Your task to perform on an android device: open app "Facebook Lite" (install if not already installed) and enter user name: "suppers@inbox.com" and password: "downplayed" Image 0: 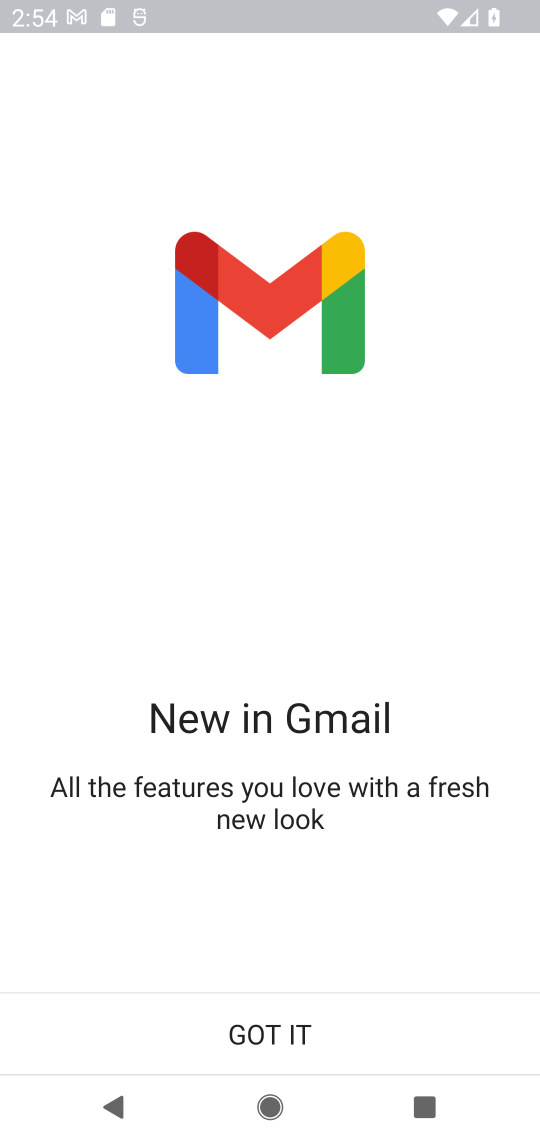
Step 0: press home button
Your task to perform on an android device: open app "Facebook Lite" (install if not already installed) and enter user name: "suppers@inbox.com" and password: "downplayed" Image 1: 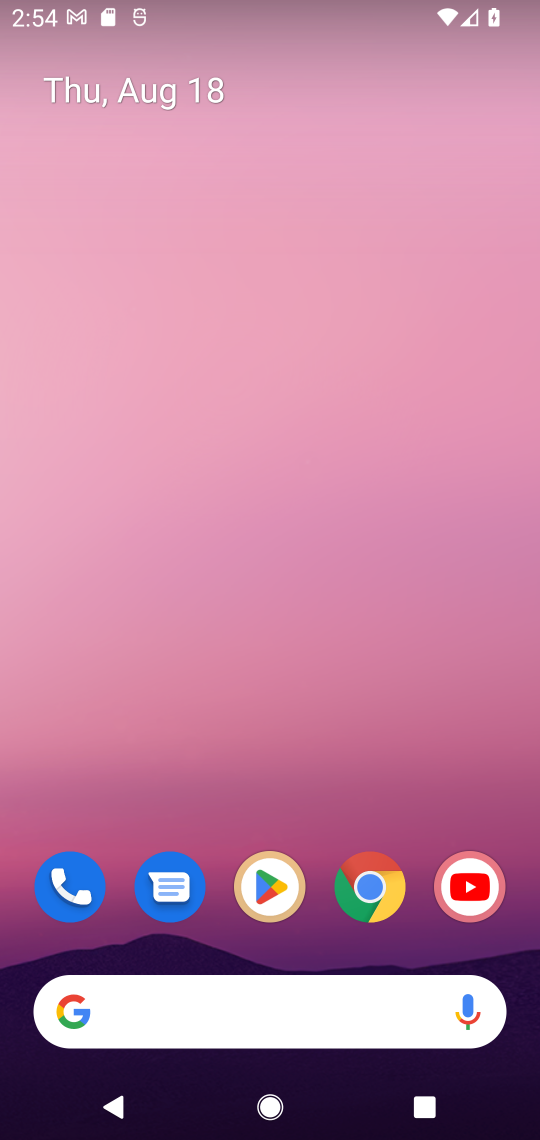
Step 1: click (270, 875)
Your task to perform on an android device: open app "Facebook Lite" (install if not already installed) and enter user name: "suppers@inbox.com" and password: "downplayed" Image 2: 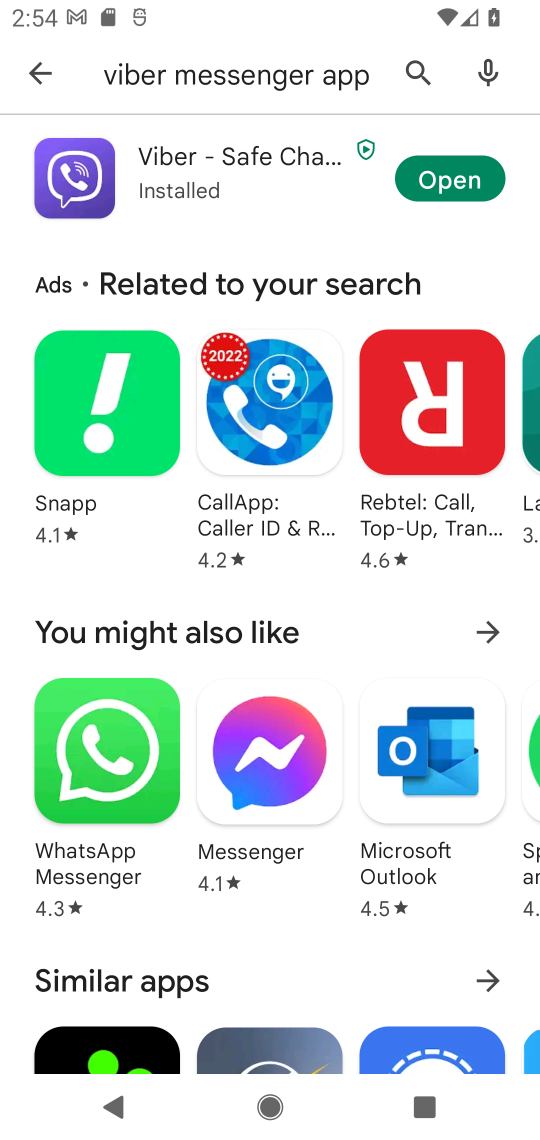
Step 2: click (401, 80)
Your task to perform on an android device: open app "Facebook Lite" (install if not already installed) and enter user name: "suppers@inbox.com" and password: "downplayed" Image 3: 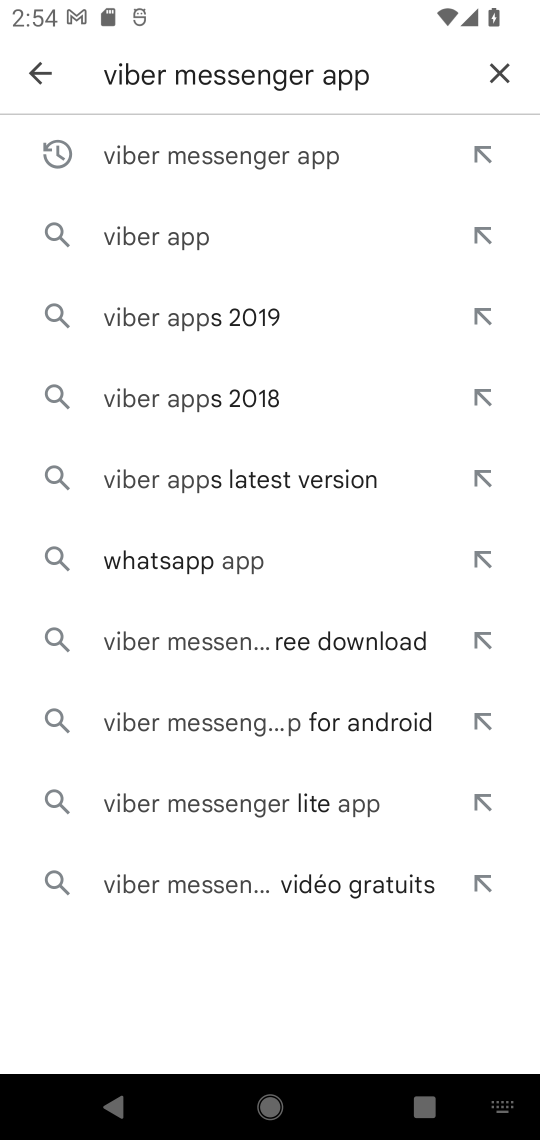
Step 3: click (499, 78)
Your task to perform on an android device: open app "Facebook Lite" (install if not already installed) and enter user name: "suppers@inbox.com" and password: "downplayed" Image 4: 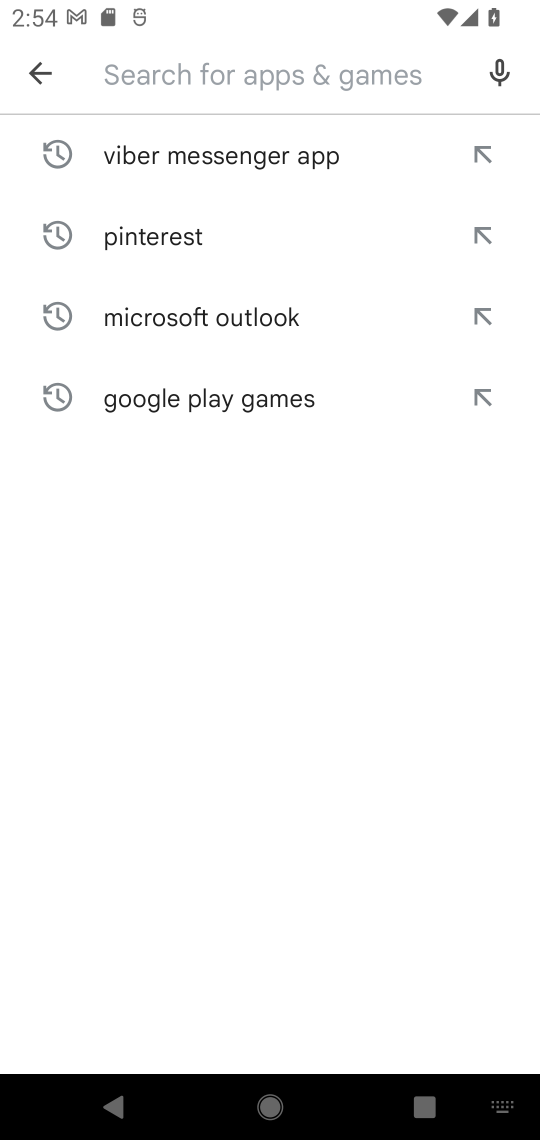
Step 4: type "Facebook Lite"
Your task to perform on an android device: open app "Facebook Lite" (install if not already installed) and enter user name: "suppers@inbox.com" and password: "downplayed" Image 5: 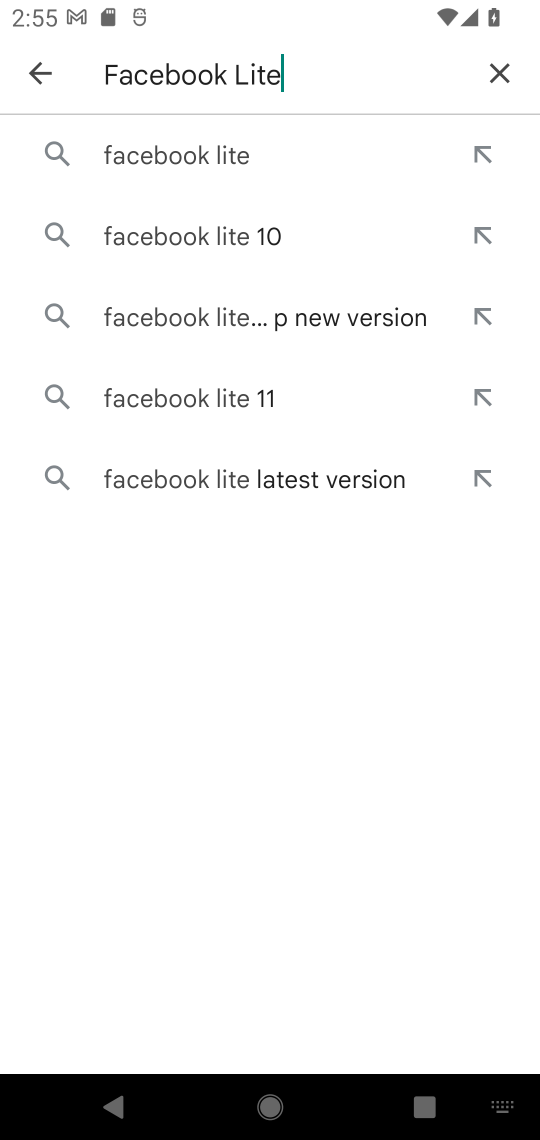
Step 5: click (203, 151)
Your task to perform on an android device: open app "Facebook Lite" (install if not already installed) and enter user name: "suppers@inbox.com" and password: "downplayed" Image 6: 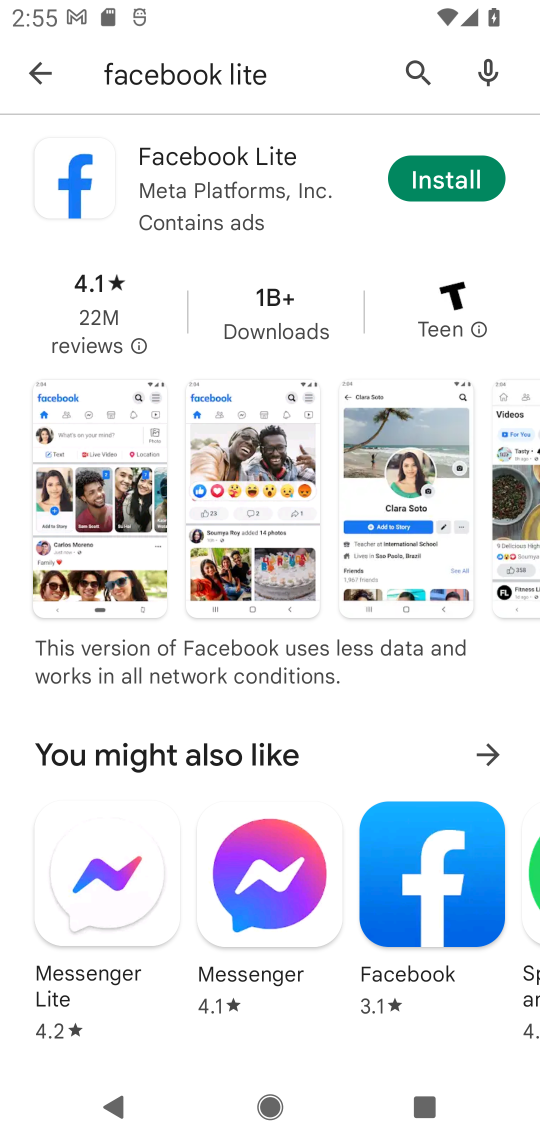
Step 6: click (449, 174)
Your task to perform on an android device: open app "Facebook Lite" (install if not already installed) and enter user name: "suppers@inbox.com" and password: "downplayed" Image 7: 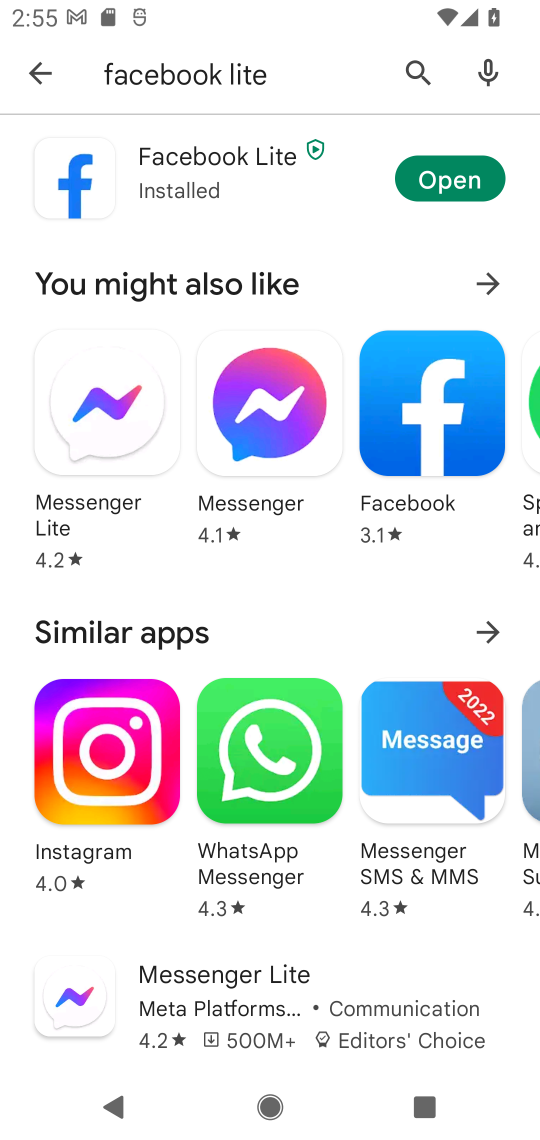
Step 7: click (444, 178)
Your task to perform on an android device: open app "Facebook Lite" (install if not already installed) and enter user name: "suppers@inbox.com" and password: "downplayed" Image 8: 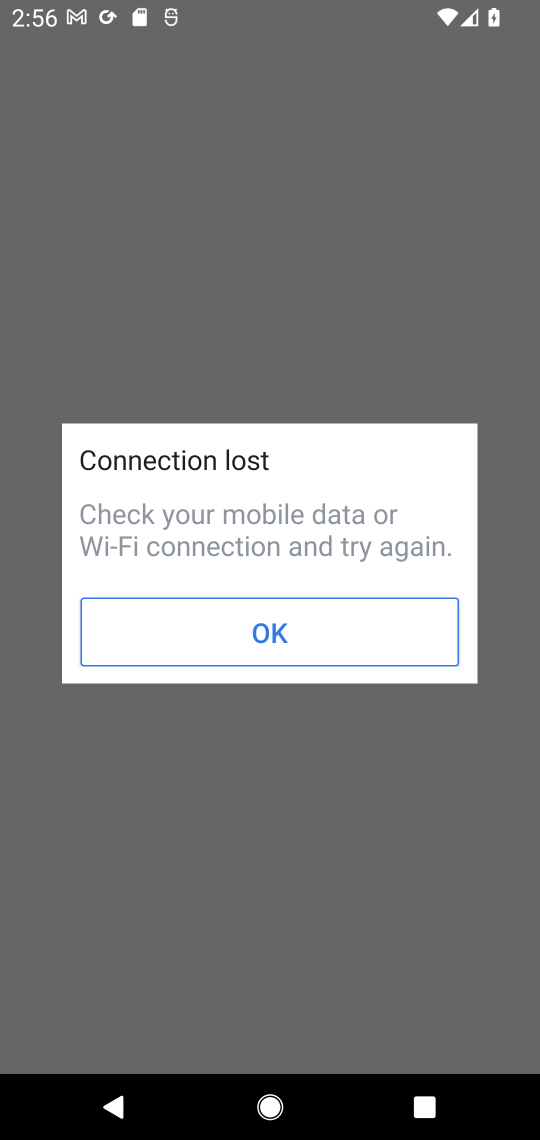
Step 8: task complete